Your task to perform on an android device: Go to wifi settings Image 0: 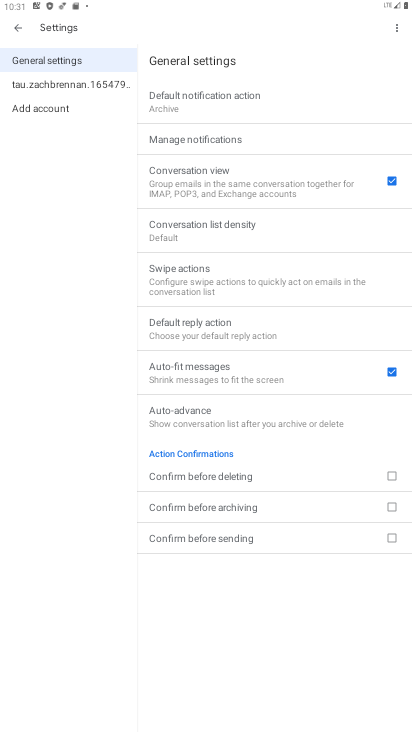
Step 0: press home button
Your task to perform on an android device: Go to wifi settings Image 1: 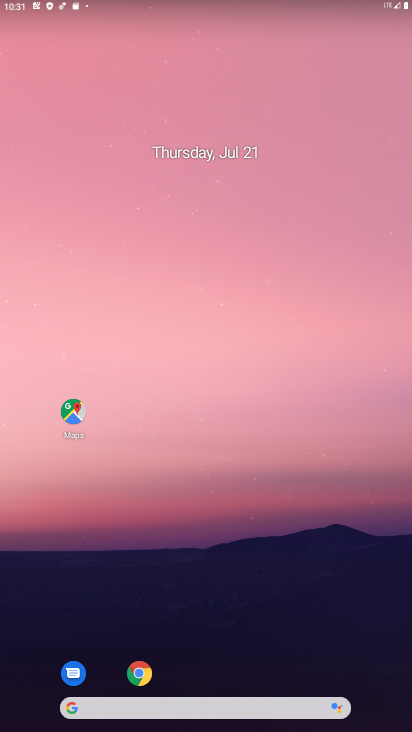
Step 1: drag from (204, 671) to (205, 222)
Your task to perform on an android device: Go to wifi settings Image 2: 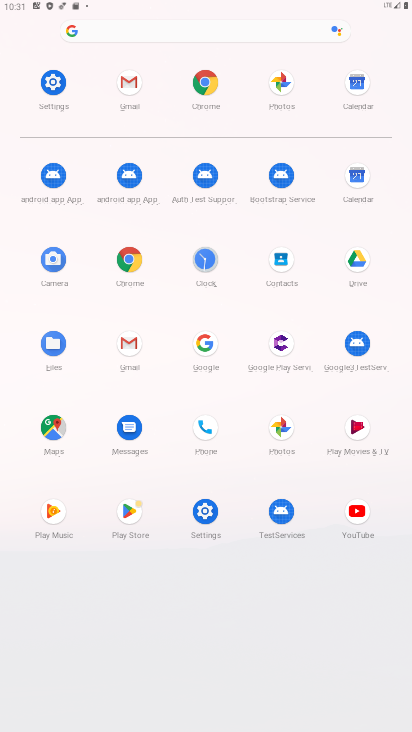
Step 2: click (60, 108)
Your task to perform on an android device: Go to wifi settings Image 3: 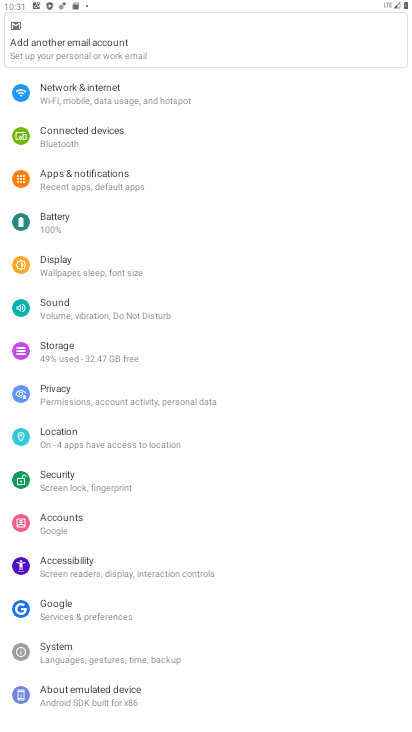
Step 3: click (153, 90)
Your task to perform on an android device: Go to wifi settings Image 4: 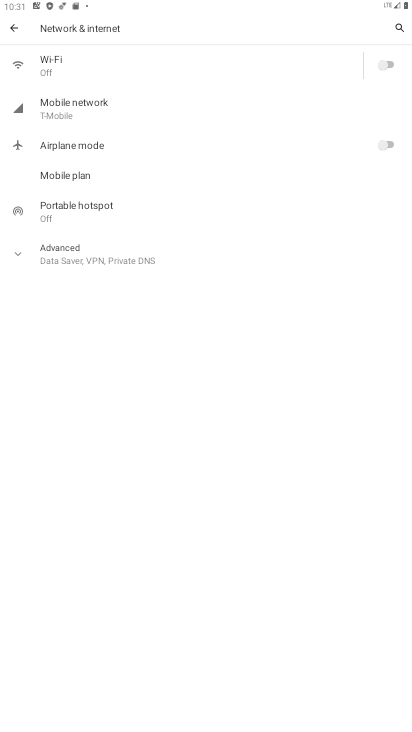
Step 4: click (115, 71)
Your task to perform on an android device: Go to wifi settings Image 5: 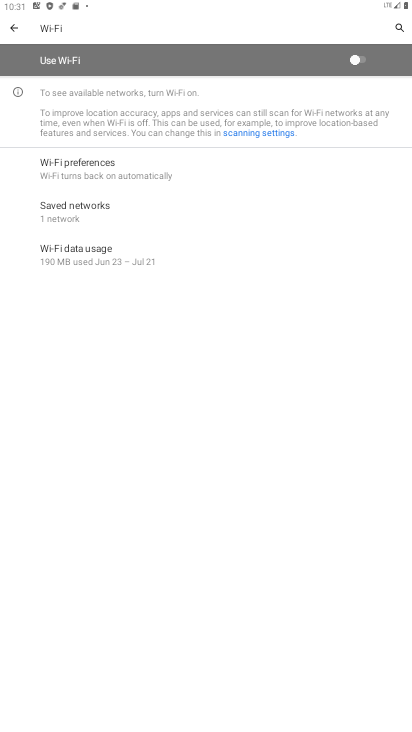
Step 5: task complete